Your task to perform on an android device: turn off notifications in google photos Image 0: 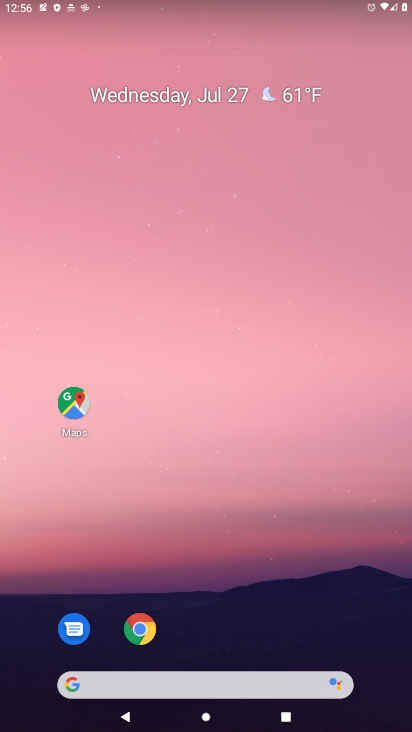
Step 0: drag from (259, 640) to (265, 461)
Your task to perform on an android device: turn off notifications in google photos Image 1: 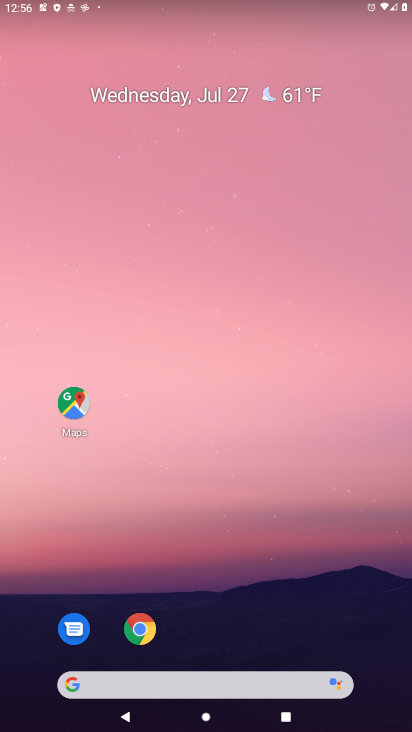
Step 1: drag from (209, 637) to (233, 0)
Your task to perform on an android device: turn off notifications in google photos Image 2: 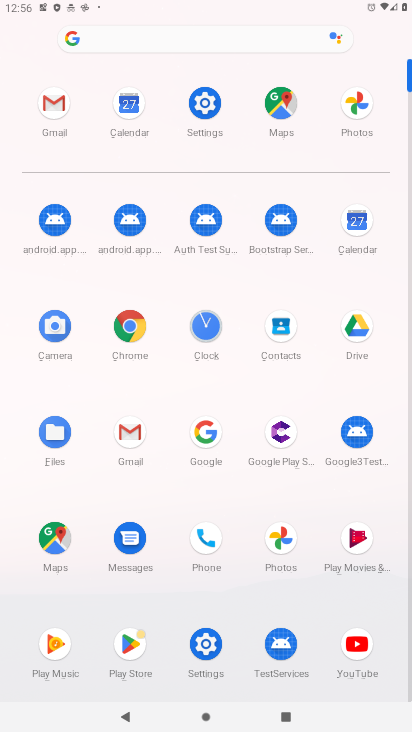
Step 2: click (344, 123)
Your task to perform on an android device: turn off notifications in google photos Image 3: 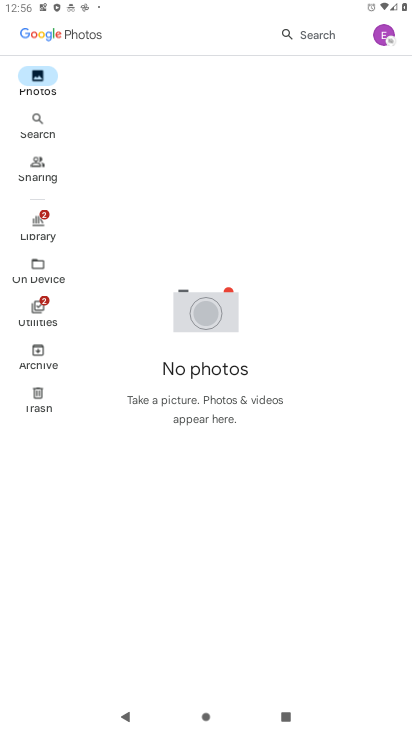
Step 3: task complete